Your task to perform on an android device: check battery use Image 0: 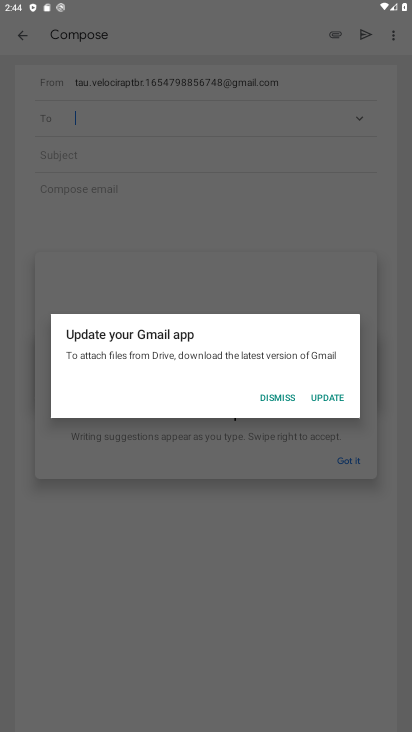
Step 0: press back button
Your task to perform on an android device: check battery use Image 1: 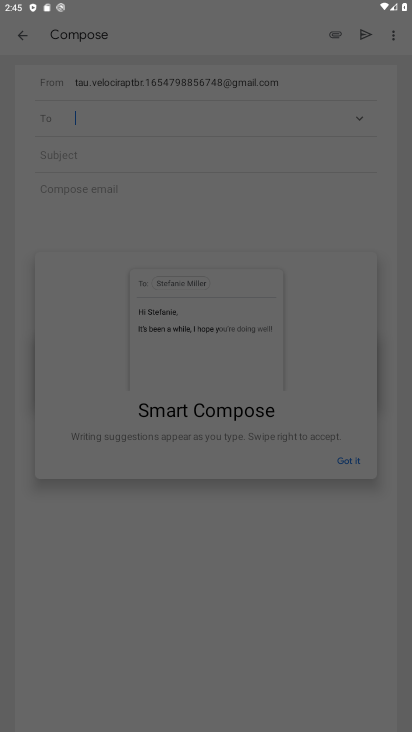
Step 1: press home button
Your task to perform on an android device: check battery use Image 2: 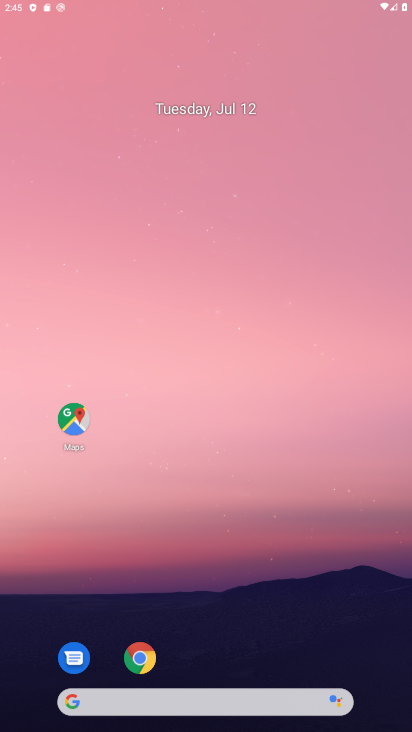
Step 2: press back button
Your task to perform on an android device: check battery use Image 3: 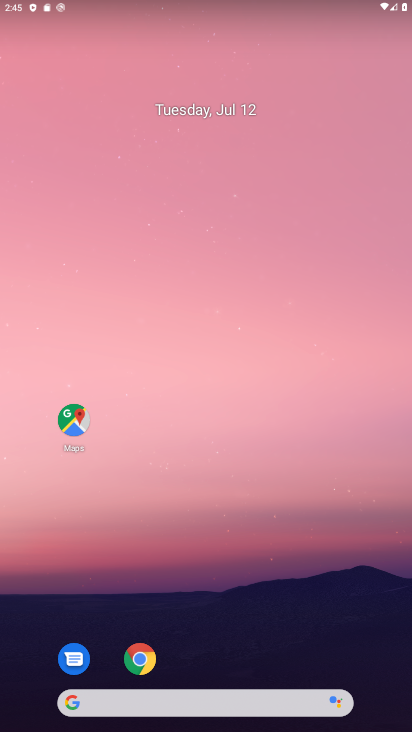
Step 3: drag from (255, 654) to (206, 305)
Your task to perform on an android device: check battery use Image 4: 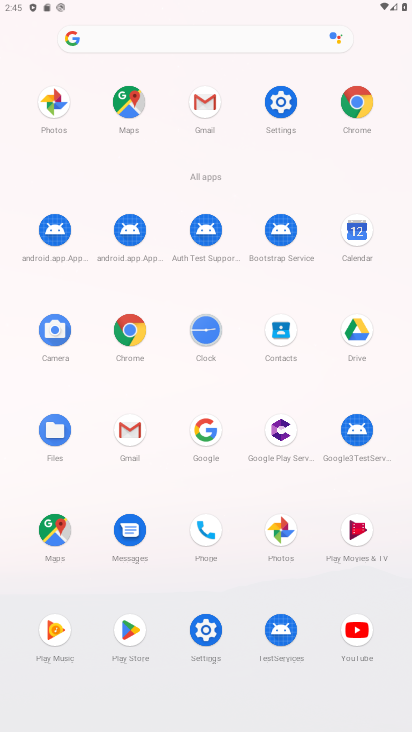
Step 4: click (286, 101)
Your task to perform on an android device: check battery use Image 5: 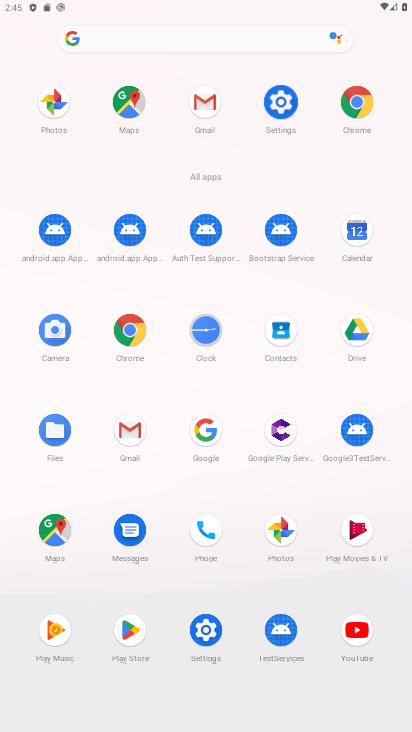
Step 5: click (285, 105)
Your task to perform on an android device: check battery use Image 6: 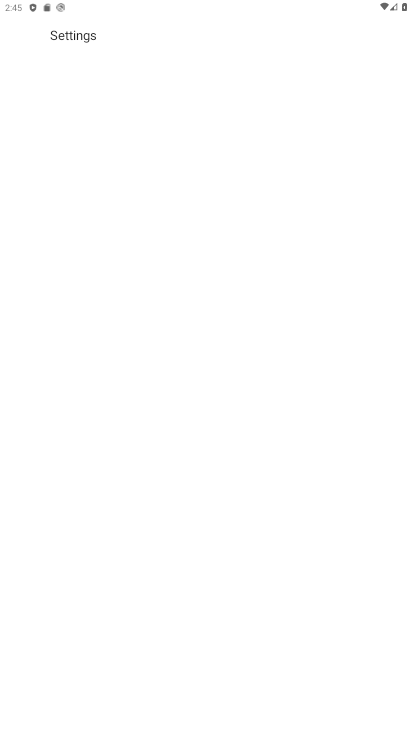
Step 6: click (285, 105)
Your task to perform on an android device: check battery use Image 7: 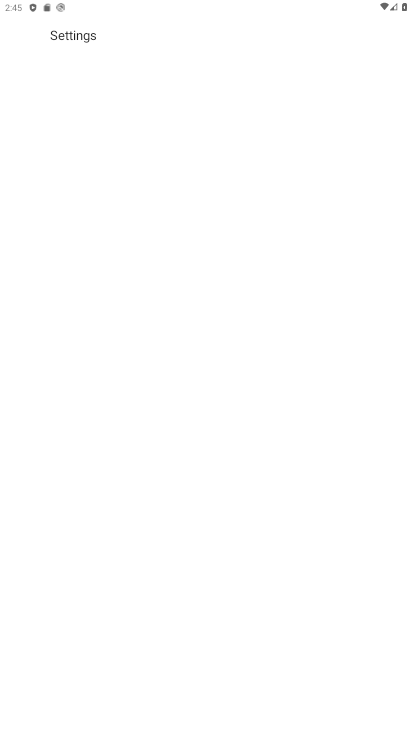
Step 7: click (285, 105)
Your task to perform on an android device: check battery use Image 8: 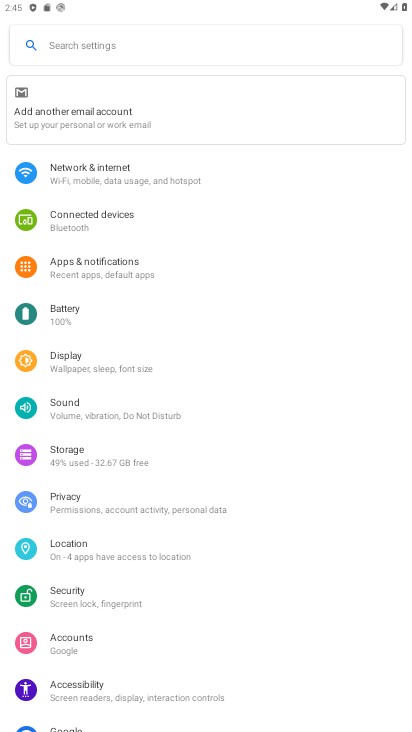
Step 8: click (63, 299)
Your task to perform on an android device: check battery use Image 9: 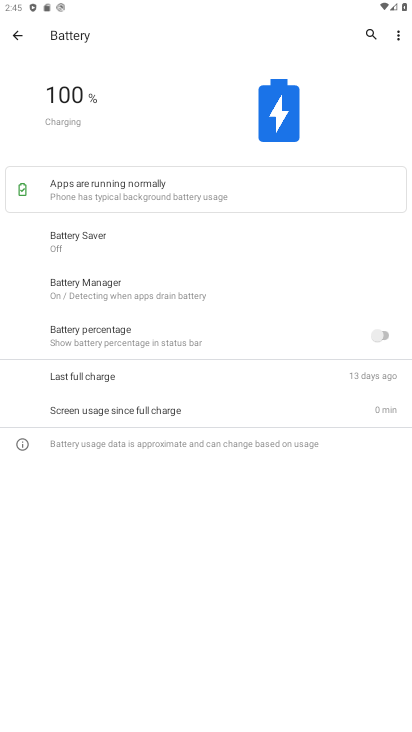
Step 9: click (11, 45)
Your task to perform on an android device: check battery use Image 10: 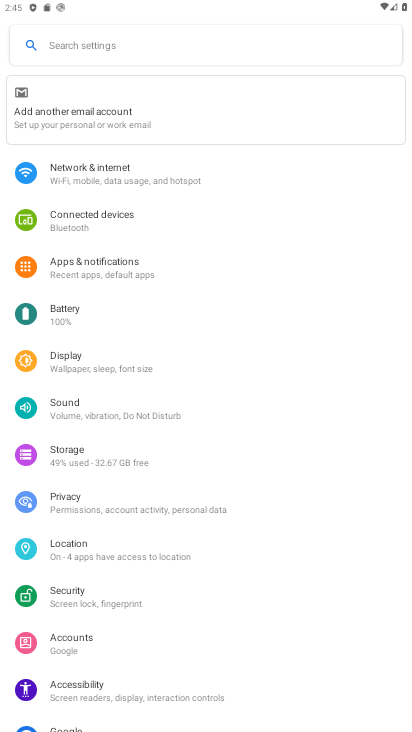
Step 10: task complete